Your task to perform on an android device: turn on location history Image 0: 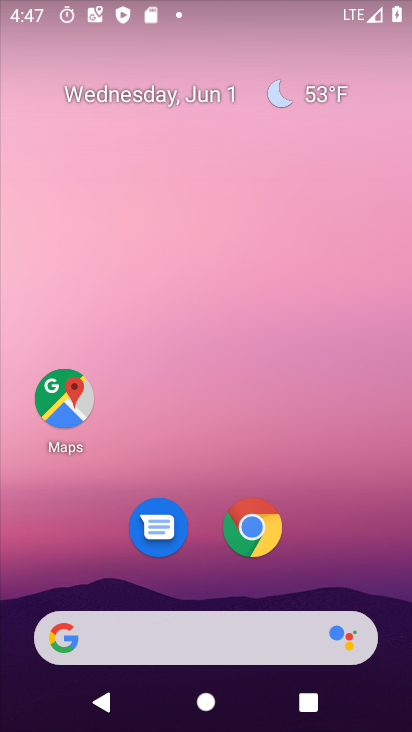
Step 0: drag from (318, 563) to (380, 77)
Your task to perform on an android device: turn on location history Image 1: 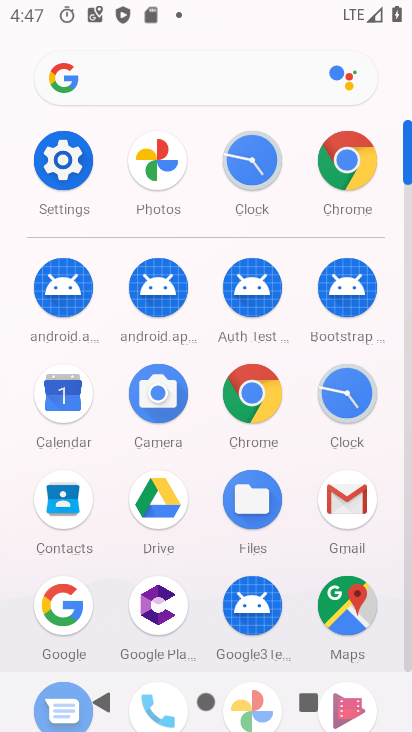
Step 1: click (349, 590)
Your task to perform on an android device: turn on location history Image 2: 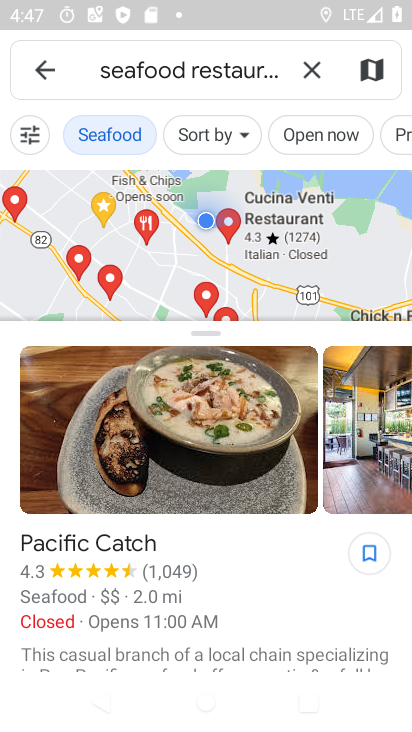
Step 2: click (41, 64)
Your task to perform on an android device: turn on location history Image 3: 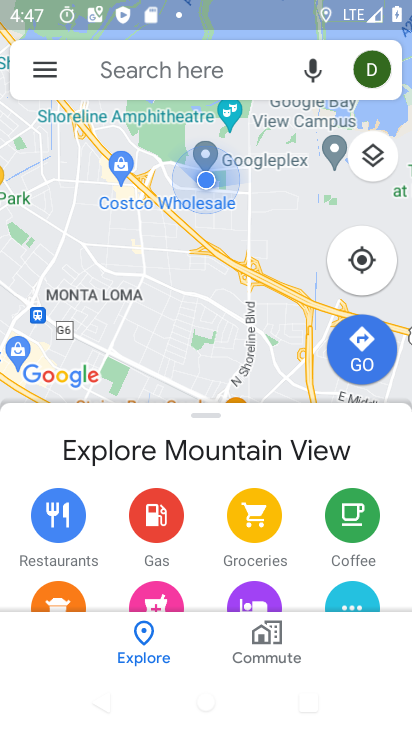
Step 3: click (33, 66)
Your task to perform on an android device: turn on location history Image 4: 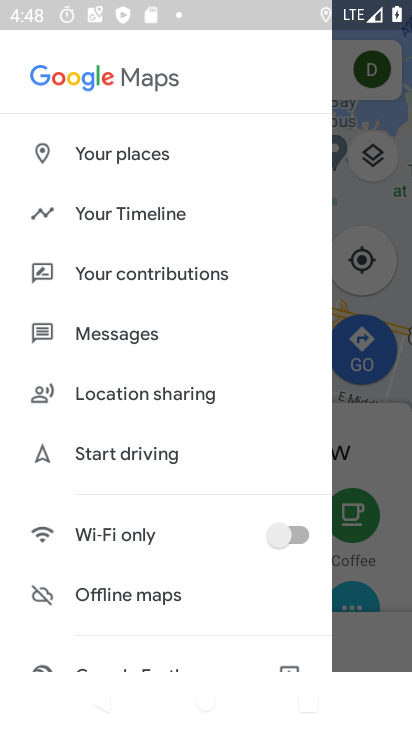
Step 4: drag from (210, 576) to (279, 173)
Your task to perform on an android device: turn on location history Image 5: 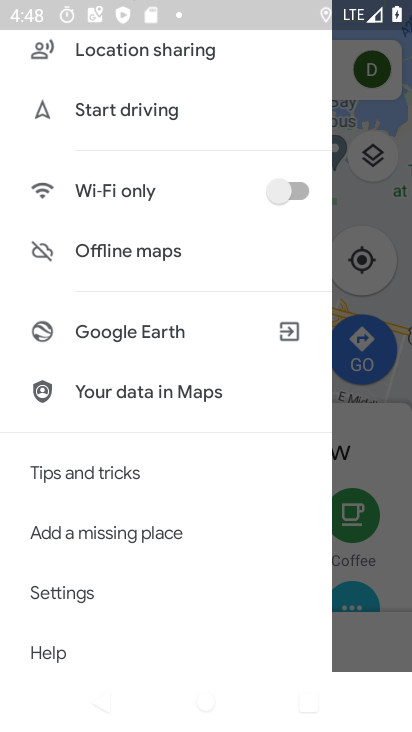
Step 5: drag from (199, 157) to (196, 636)
Your task to perform on an android device: turn on location history Image 6: 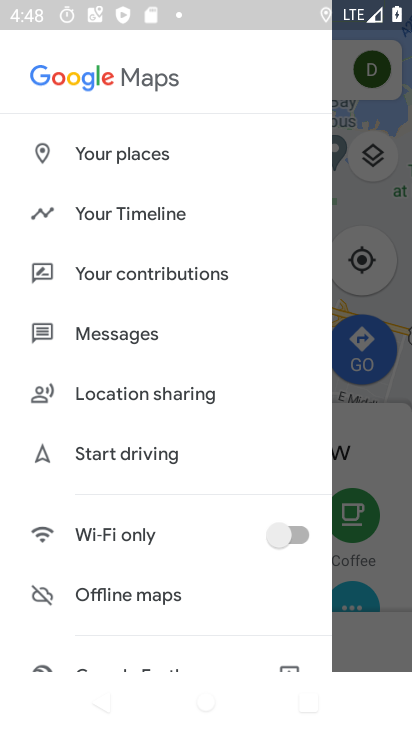
Step 6: click (156, 212)
Your task to perform on an android device: turn on location history Image 7: 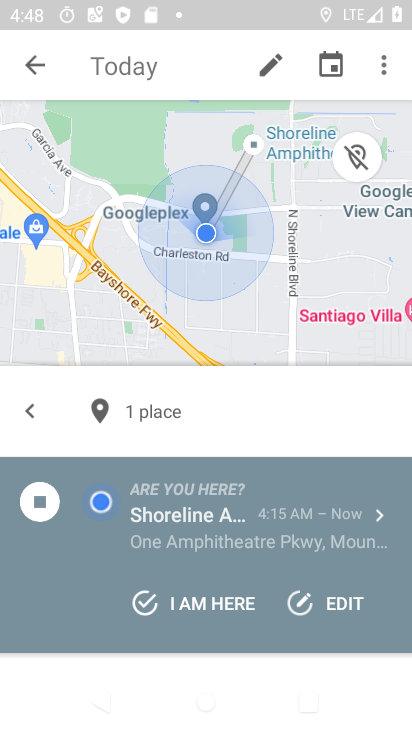
Step 7: click (376, 64)
Your task to perform on an android device: turn on location history Image 8: 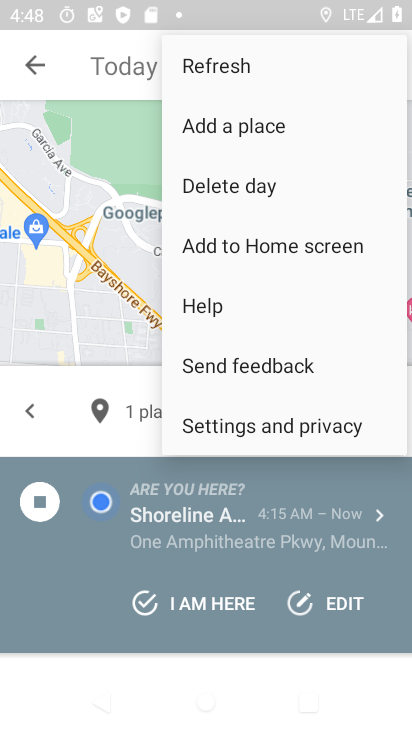
Step 8: click (263, 424)
Your task to perform on an android device: turn on location history Image 9: 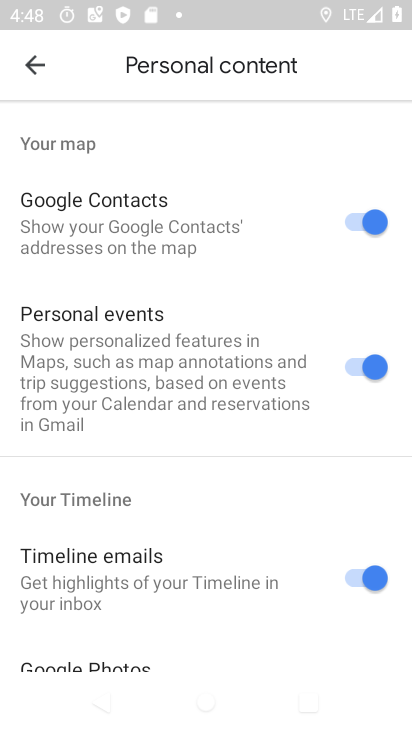
Step 9: drag from (238, 582) to (346, 158)
Your task to perform on an android device: turn on location history Image 10: 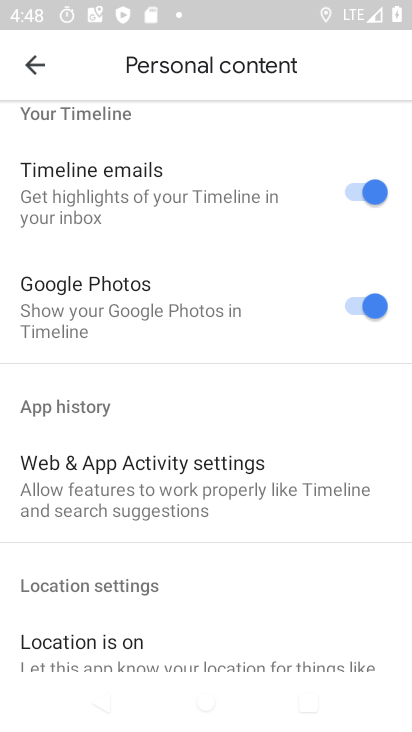
Step 10: drag from (272, 579) to (301, 205)
Your task to perform on an android device: turn on location history Image 11: 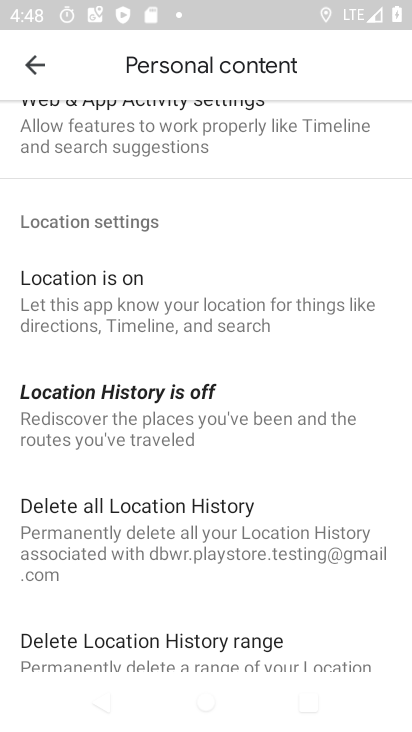
Step 11: click (85, 392)
Your task to perform on an android device: turn on location history Image 12: 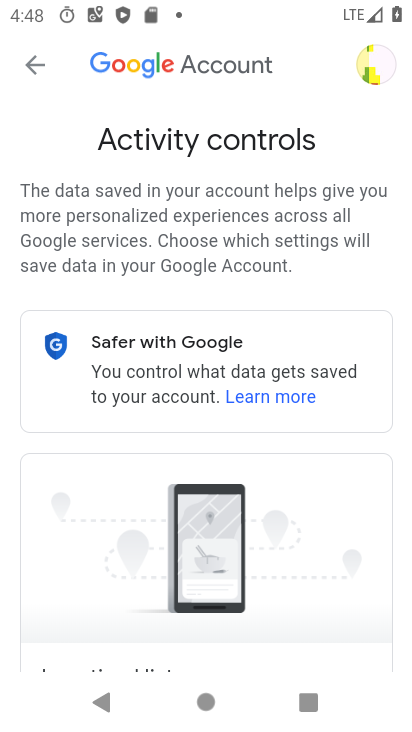
Step 12: drag from (310, 577) to (367, 323)
Your task to perform on an android device: turn on location history Image 13: 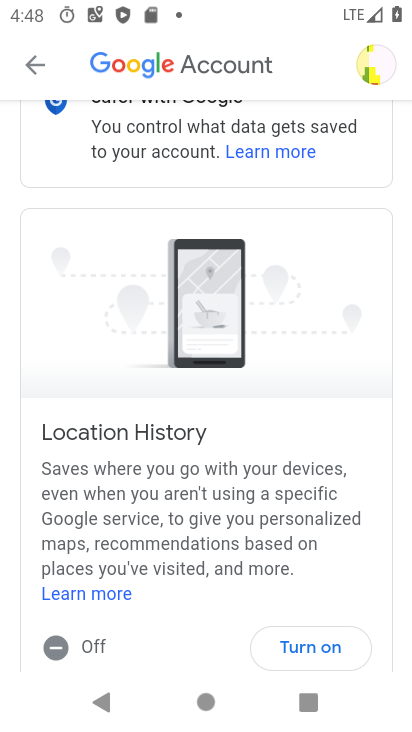
Step 13: click (332, 643)
Your task to perform on an android device: turn on location history Image 14: 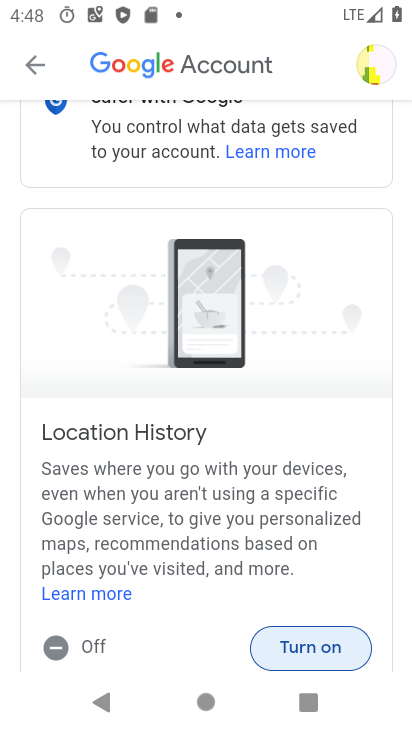
Step 14: click (332, 643)
Your task to perform on an android device: turn on location history Image 15: 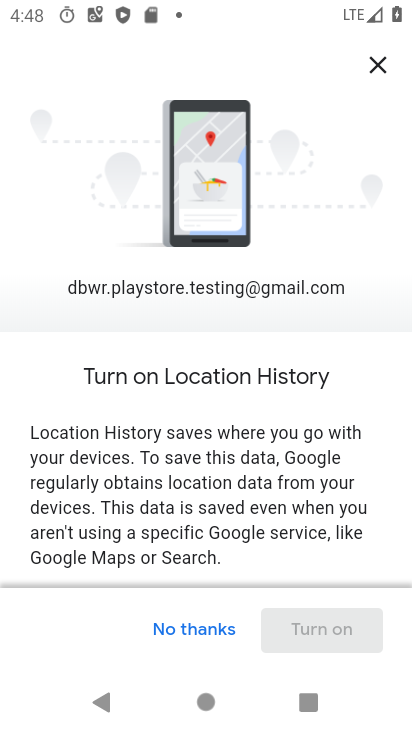
Step 15: drag from (335, 569) to (372, 122)
Your task to perform on an android device: turn on location history Image 16: 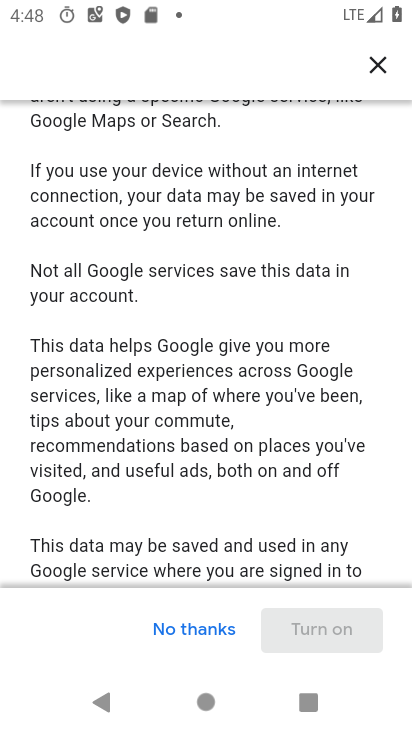
Step 16: drag from (286, 494) to (306, 120)
Your task to perform on an android device: turn on location history Image 17: 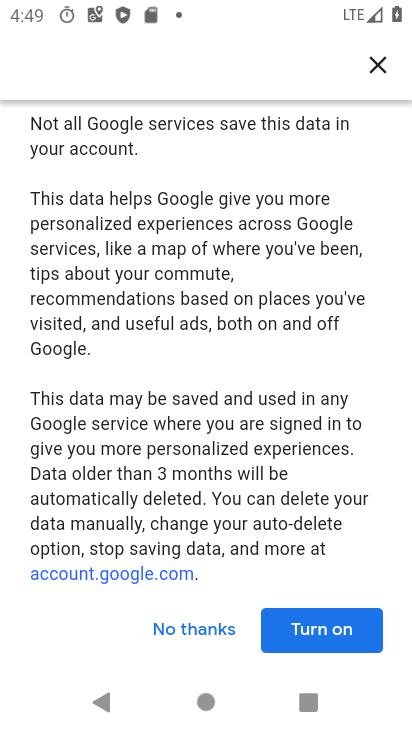
Step 17: click (326, 620)
Your task to perform on an android device: turn on location history Image 18: 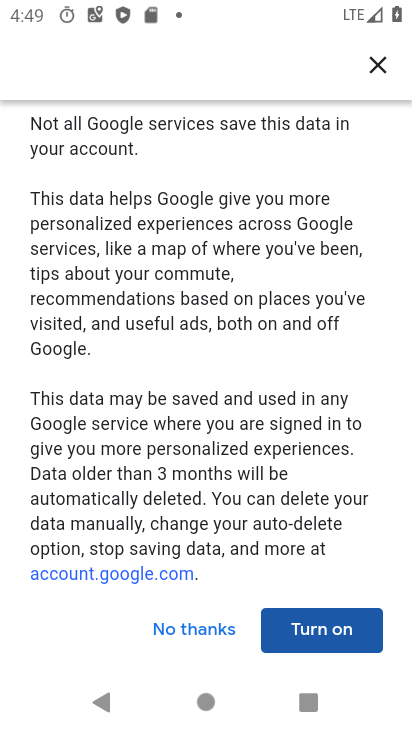
Step 18: click (326, 620)
Your task to perform on an android device: turn on location history Image 19: 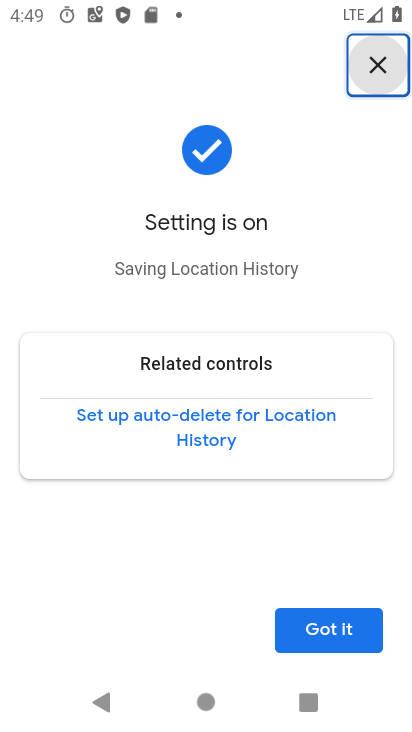
Step 19: click (326, 618)
Your task to perform on an android device: turn on location history Image 20: 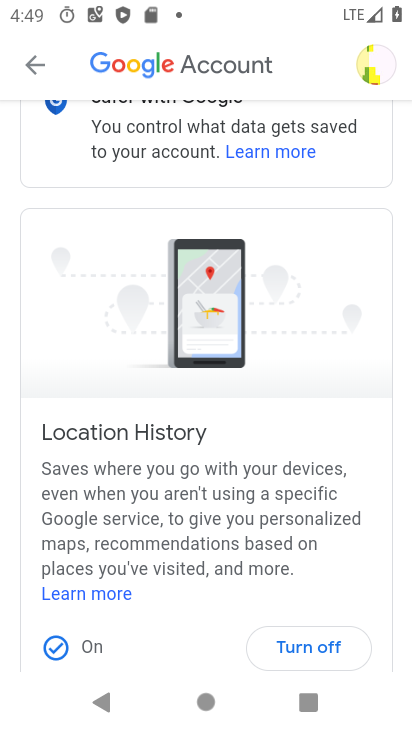
Step 20: task complete